Your task to perform on an android device: Open calendar and show me the second week of next month Image 0: 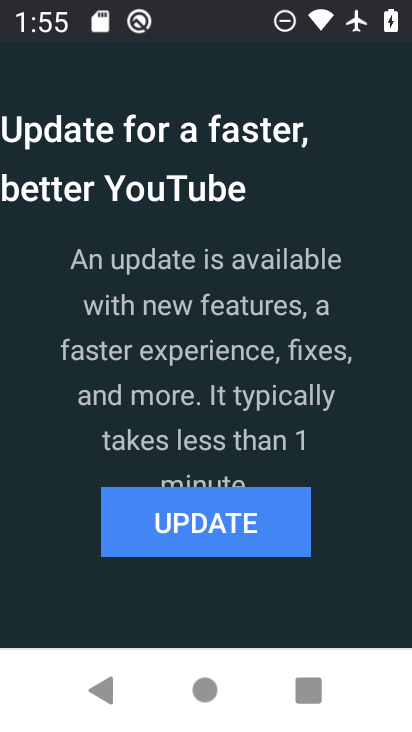
Step 0: press home button
Your task to perform on an android device: Open calendar and show me the second week of next month Image 1: 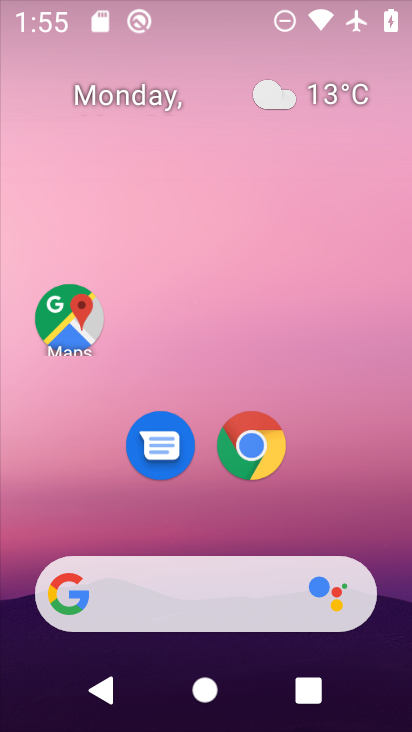
Step 1: drag from (375, 644) to (324, 113)
Your task to perform on an android device: Open calendar and show me the second week of next month Image 2: 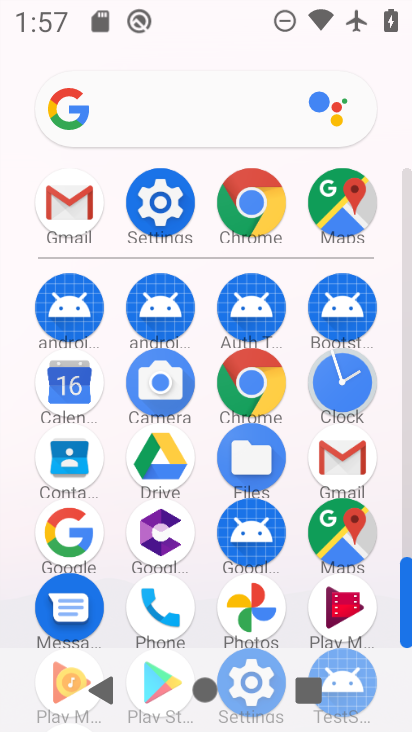
Step 2: click (77, 387)
Your task to perform on an android device: Open calendar and show me the second week of next month Image 3: 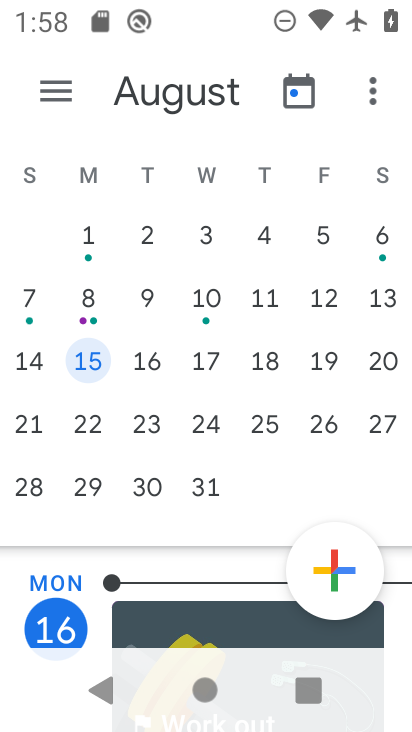
Step 3: drag from (308, 364) to (35, 368)
Your task to perform on an android device: Open calendar and show me the second week of next month Image 4: 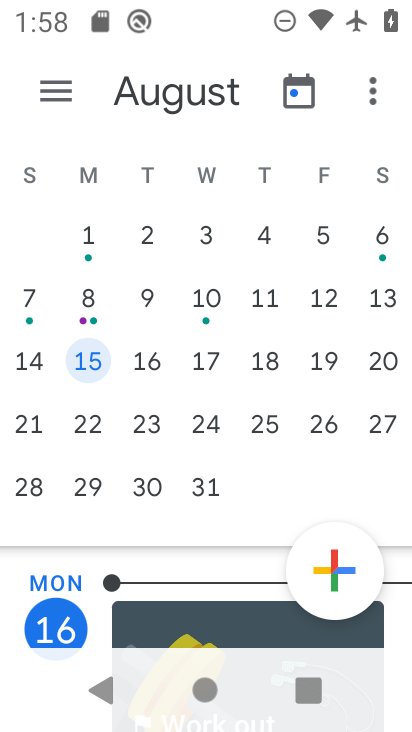
Step 4: click (220, 359)
Your task to perform on an android device: Open calendar and show me the second week of next month Image 5: 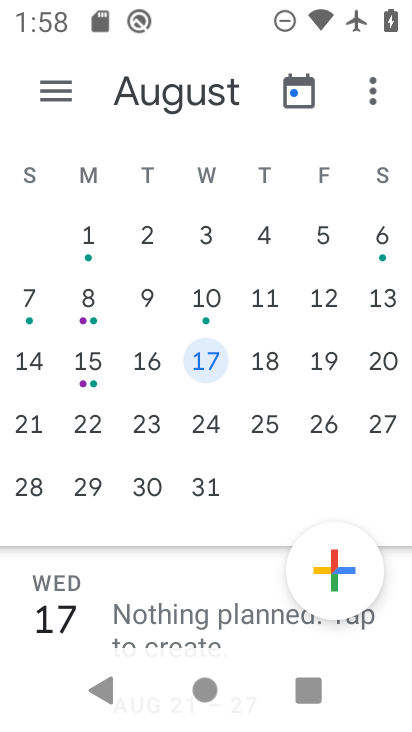
Step 5: task complete